Your task to perform on an android device: install app "Firefox Browser" Image 0: 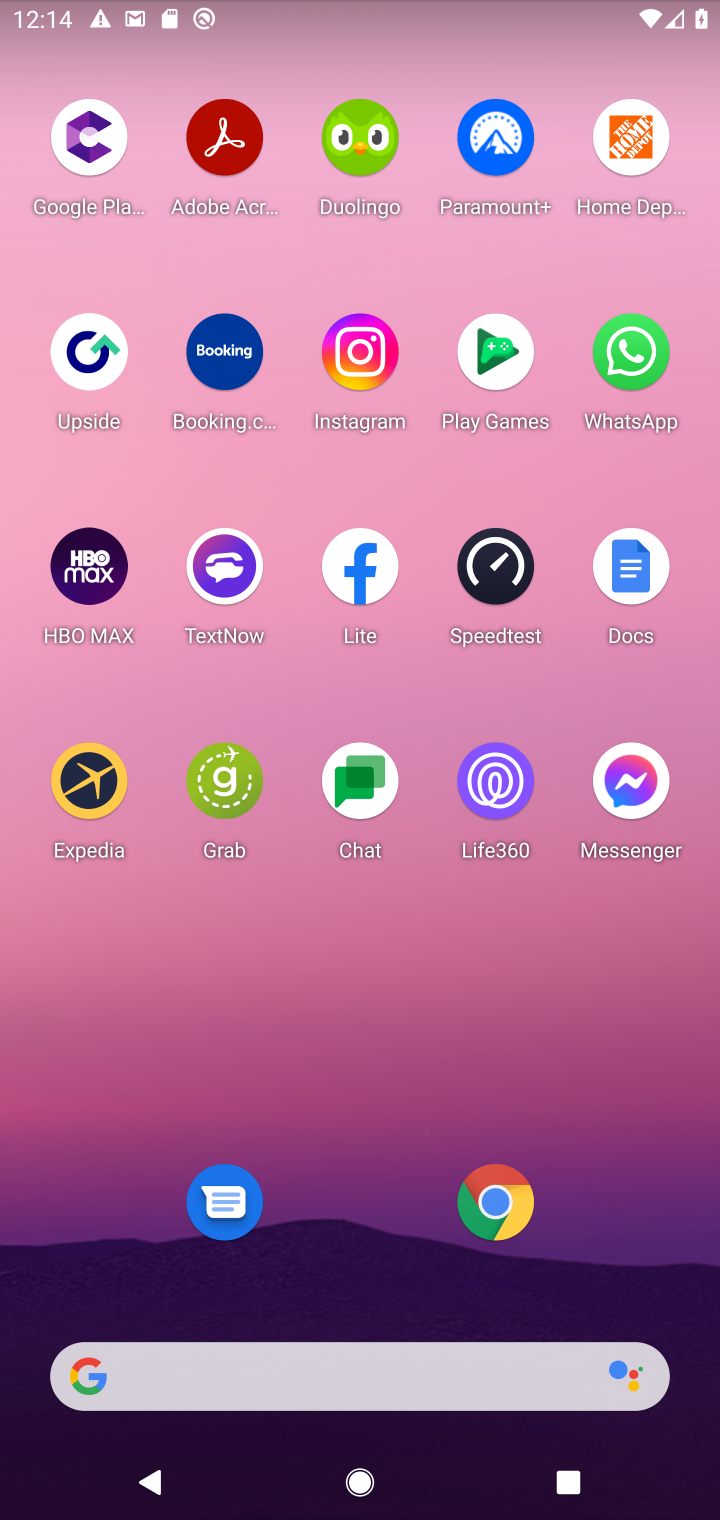
Step 0: drag from (360, 1173) to (348, 69)
Your task to perform on an android device: install app "Firefox Browser" Image 1: 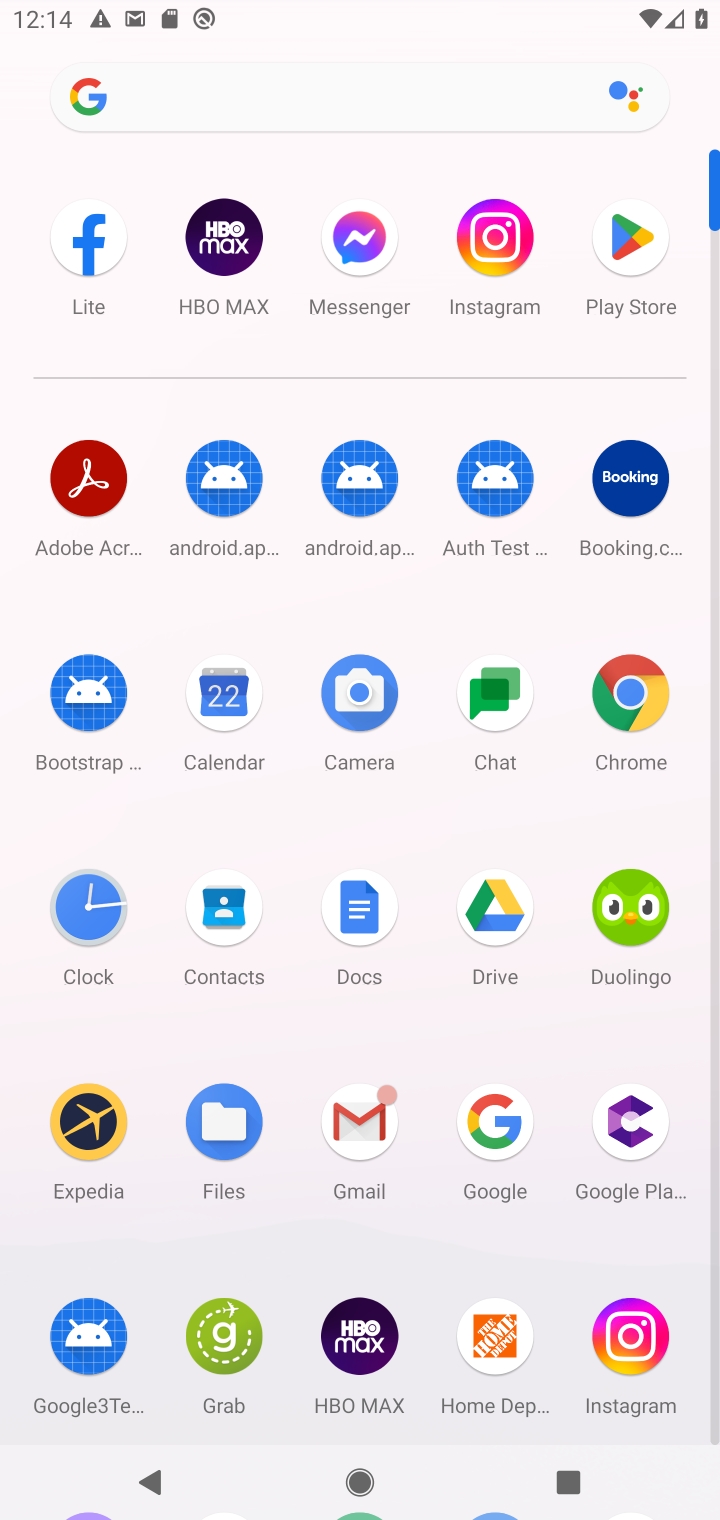
Step 1: click (634, 231)
Your task to perform on an android device: install app "Firefox Browser" Image 2: 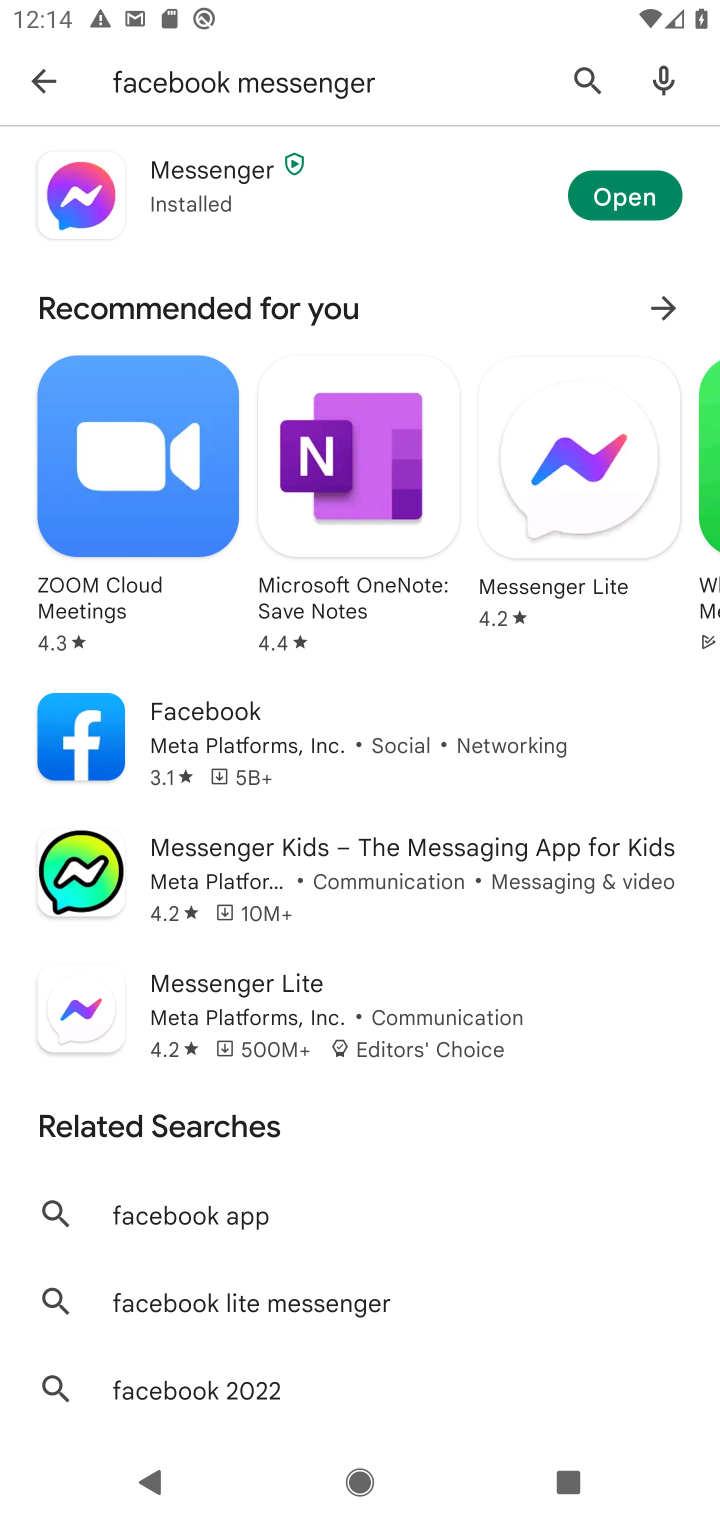
Step 2: click (587, 76)
Your task to perform on an android device: install app "Firefox Browser" Image 3: 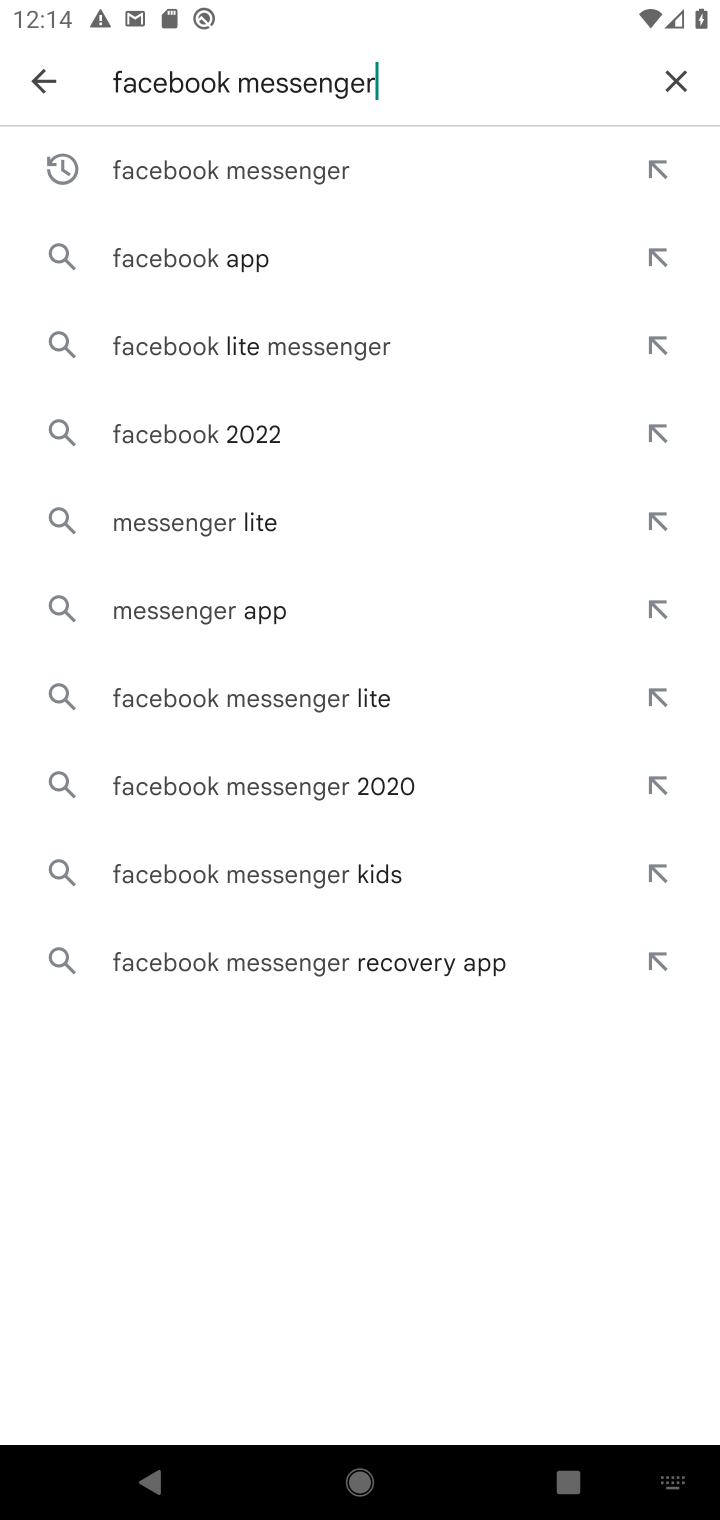
Step 3: click (673, 74)
Your task to perform on an android device: install app "Firefox Browser" Image 4: 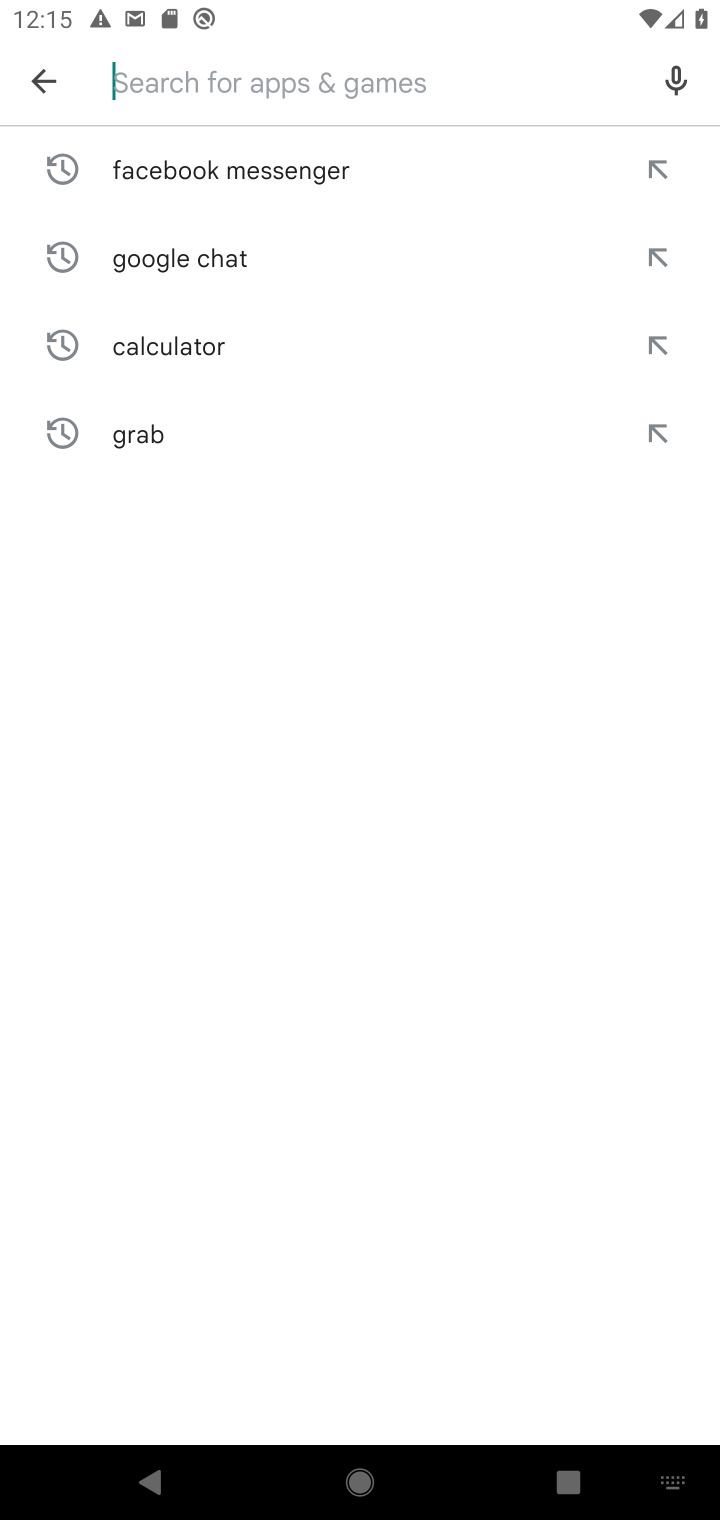
Step 4: type "Firefox Browser"
Your task to perform on an android device: install app "Firefox Browser" Image 5: 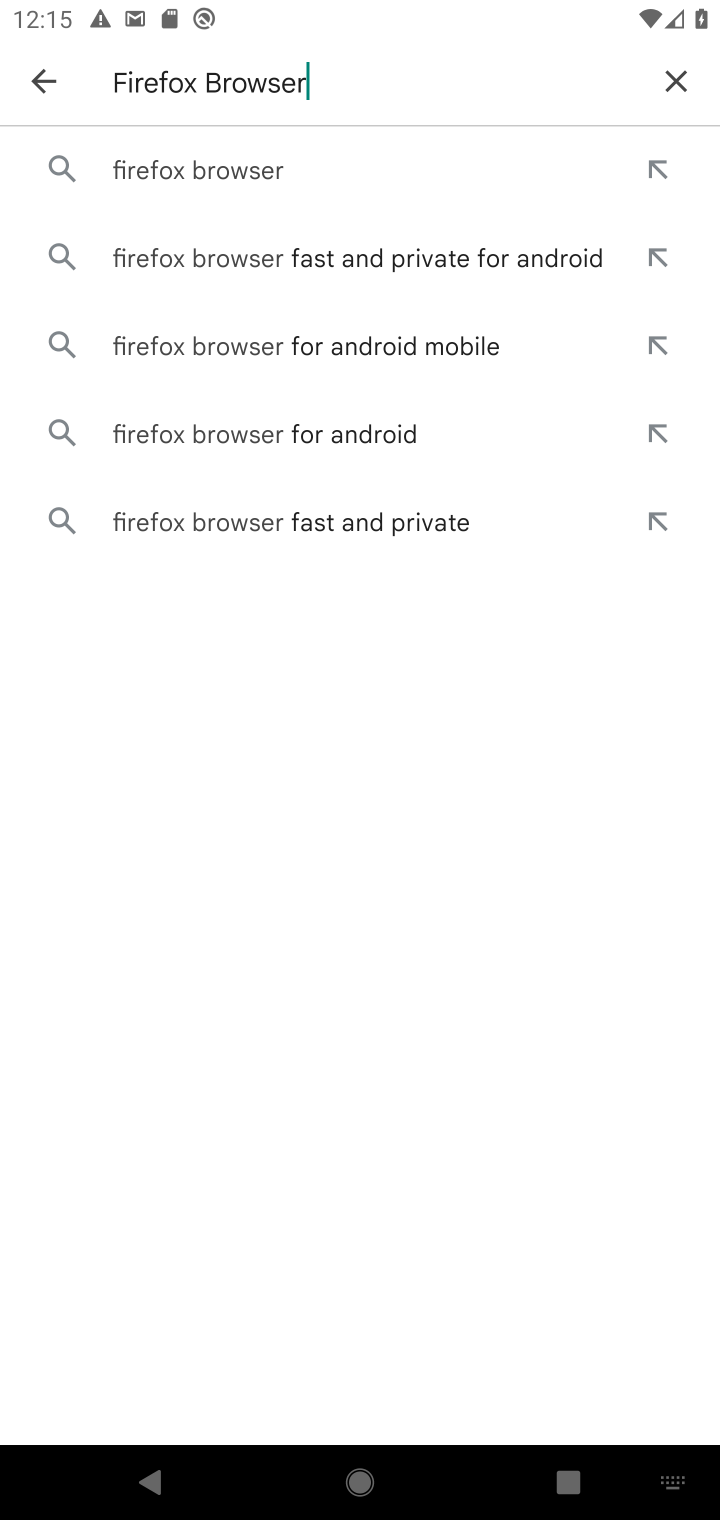
Step 5: click (161, 161)
Your task to perform on an android device: install app "Firefox Browser" Image 6: 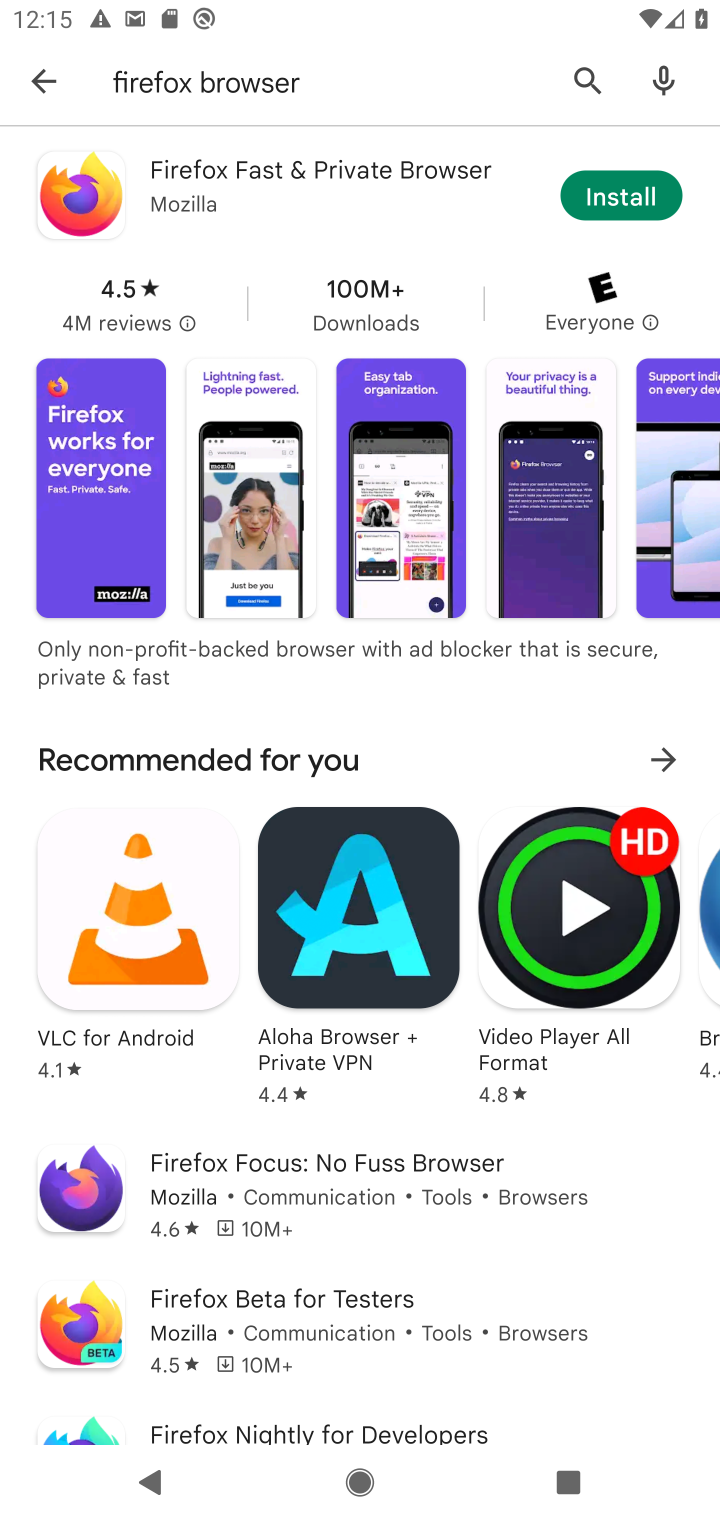
Step 6: click (620, 193)
Your task to perform on an android device: install app "Firefox Browser" Image 7: 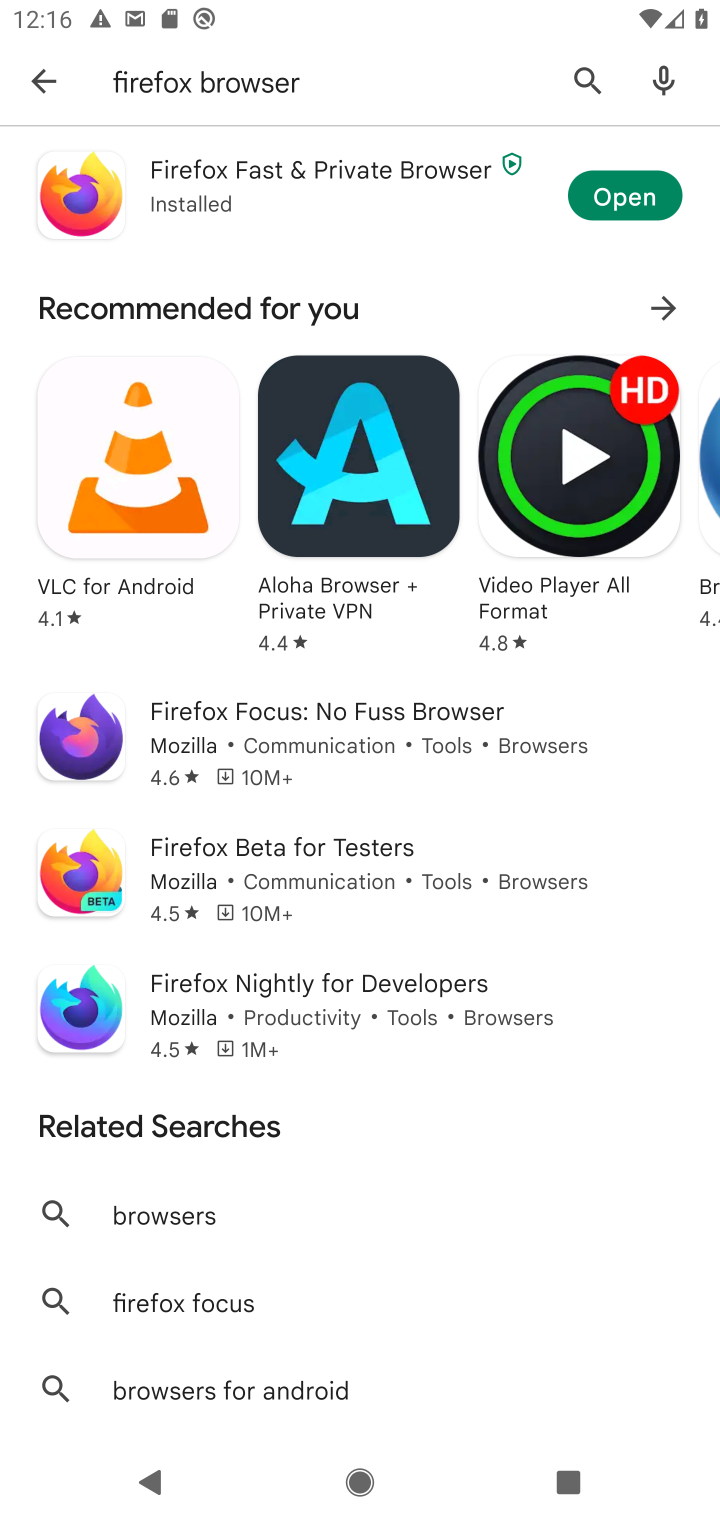
Step 7: task complete